Your task to perform on an android device: Open the phone app and click the voicemail tab. Image 0: 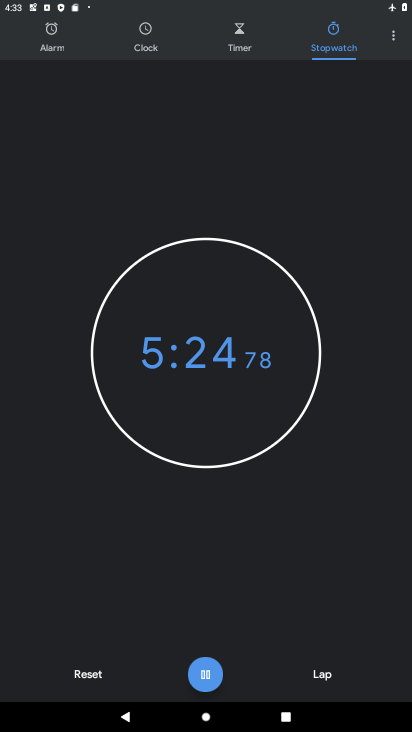
Step 0: press home button
Your task to perform on an android device: Open the phone app and click the voicemail tab. Image 1: 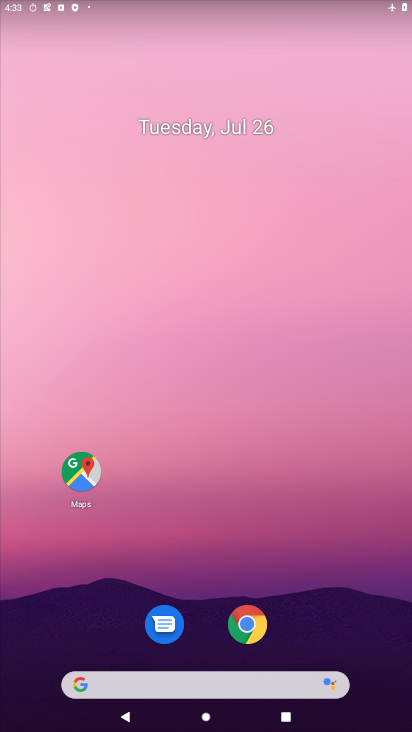
Step 1: drag from (198, 686) to (188, 90)
Your task to perform on an android device: Open the phone app and click the voicemail tab. Image 2: 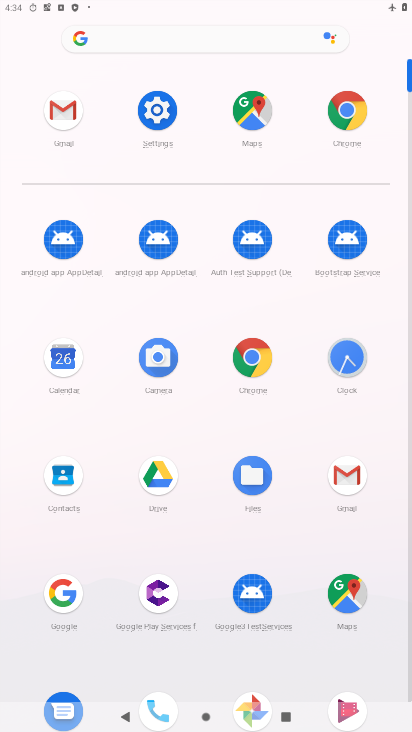
Step 2: drag from (182, 678) to (187, 386)
Your task to perform on an android device: Open the phone app and click the voicemail tab. Image 3: 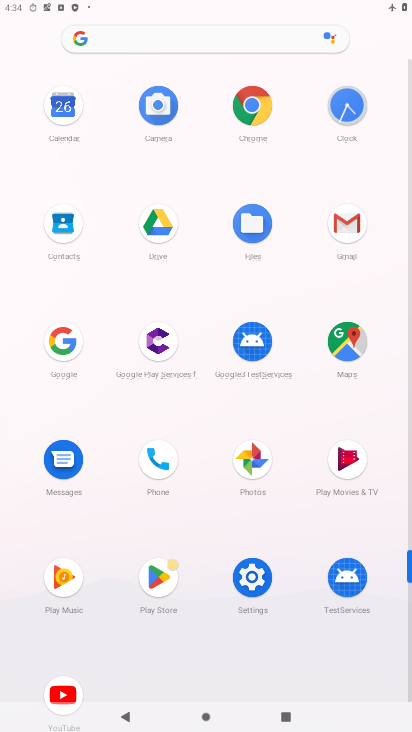
Step 3: click (159, 465)
Your task to perform on an android device: Open the phone app and click the voicemail tab. Image 4: 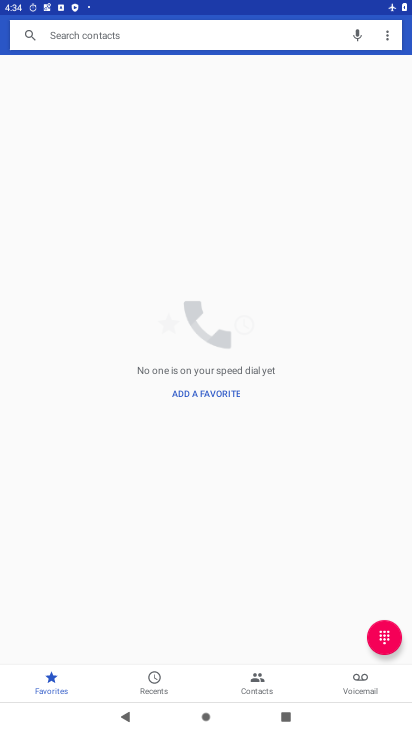
Step 4: click (369, 679)
Your task to perform on an android device: Open the phone app and click the voicemail tab. Image 5: 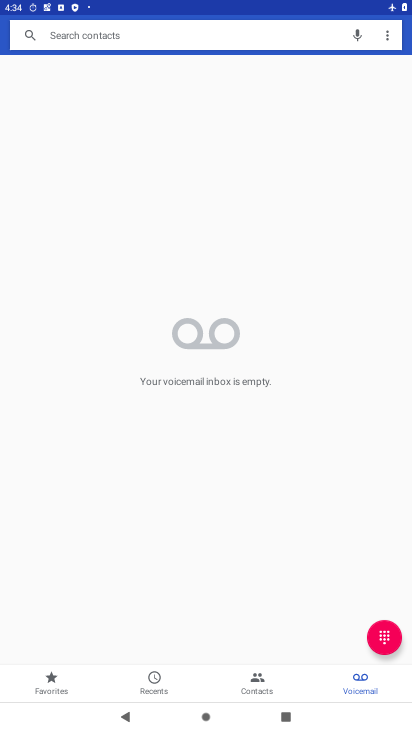
Step 5: click (355, 682)
Your task to perform on an android device: Open the phone app and click the voicemail tab. Image 6: 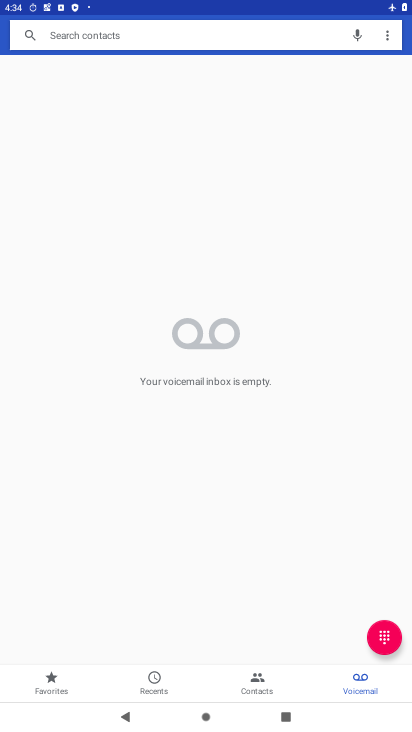
Step 6: task complete